Your task to perform on an android device: see sites visited before in the chrome app Image 0: 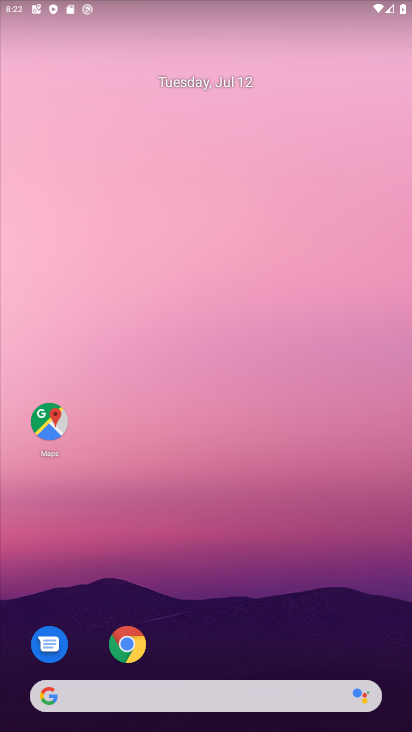
Step 0: drag from (228, 635) to (236, 102)
Your task to perform on an android device: see sites visited before in the chrome app Image 1: 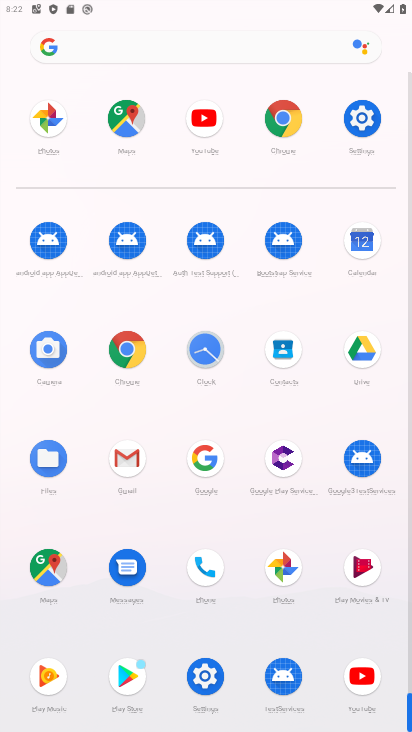
Step 1: click (282, 116)
Your task to perform on an android device: see sites visited before in the chrome app Image 2: 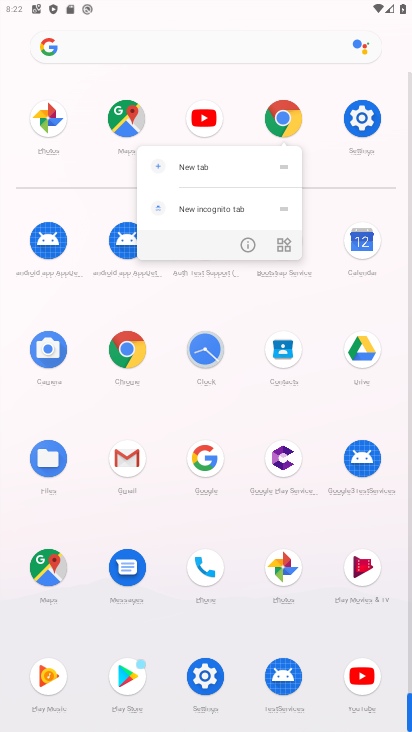
Step 2: click (249, 247)
Your task to perform on an android device: see sites visited before in the chrome app Image 3: 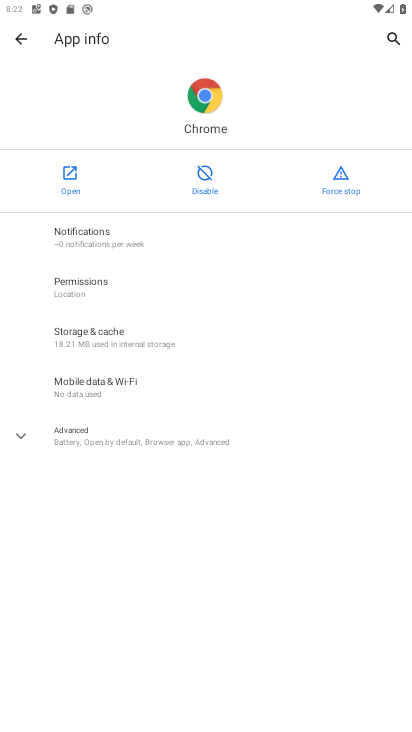
Step 3: click (65, 170)
Your task to perform on an android device: see sites visited before in the chrome app Image 4: 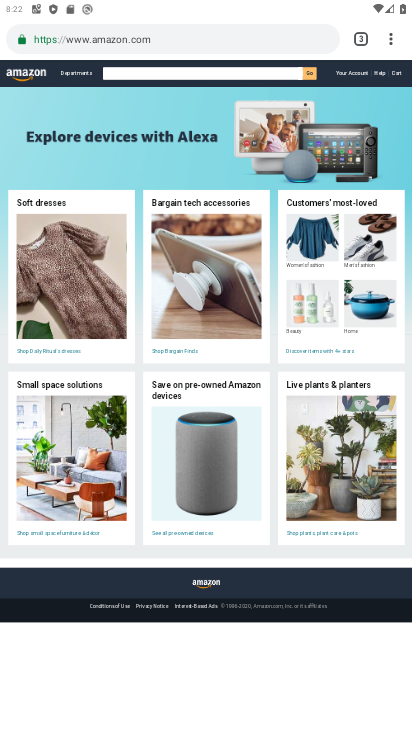
Step 4: click (389, 31)
Your task to perform on an android device: see sites visited before in the chrome app Image 5: 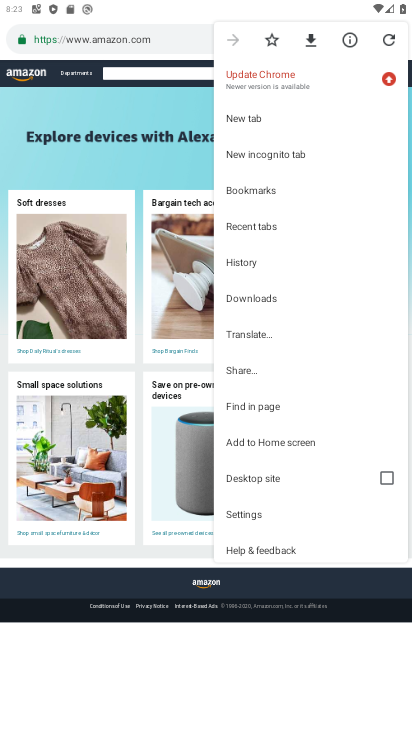
Step 5: click (257, 185)
Your task to perform on an android device: see sites visited before in the chrome app Image 6: 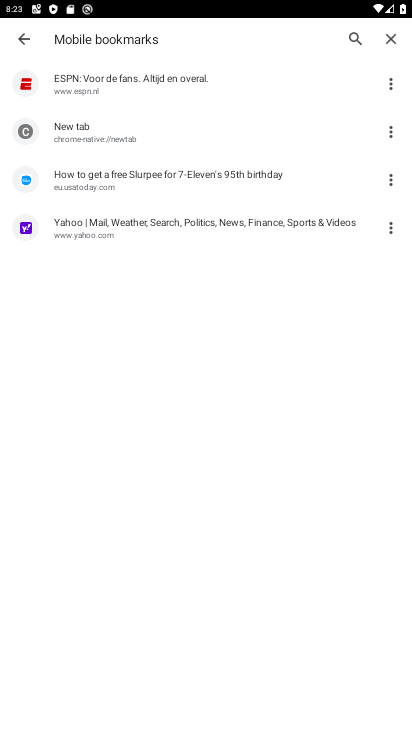
Step 6: task complete